Your task to perform on an android device: Show me popular games on the Play Store Image 0: 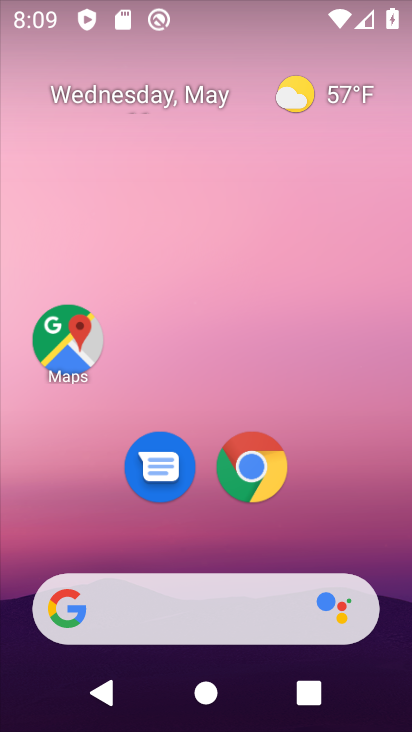
Step 0: drag from (336, 542) to (90, 5)
Your task to perform on an android device: Show me popular games on the Play Store Image 1: 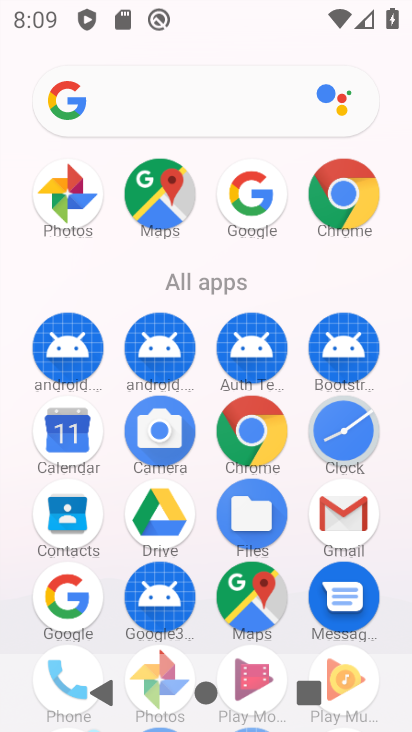
Step 1: drag from (203, 497) to (146, 322)
Your task to perform on an android device: Show me popular games on the Play Store Image 2: 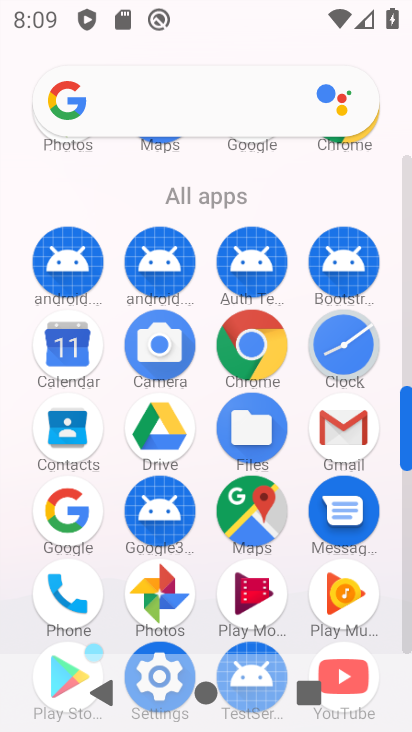
Step 2: drag from (215, 504) to (206, 76)
Your task to perform on an android device: Show me popular games on the Play Store Image 3: 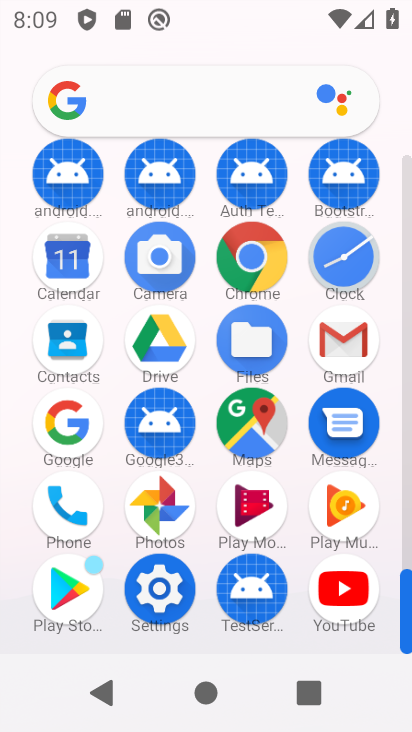
Step 3: drag from (183, 541) to (146, 259)
Your task to perform on an android device: Show me popular games on the Play Store Image 4: 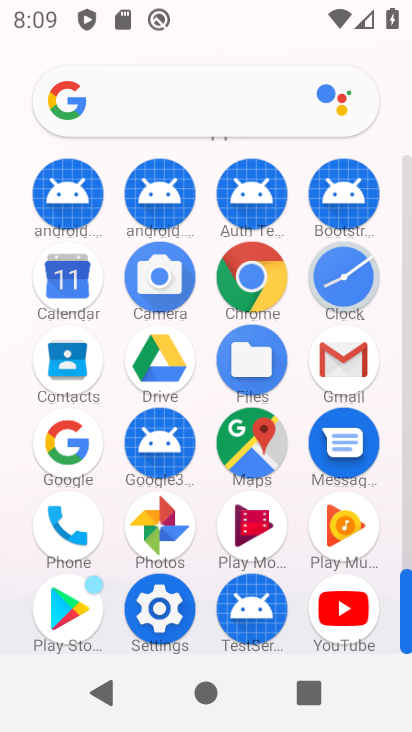
Step 4: drag from (190, 428) to (189, 142)
Your task to perform on an android device: Show me popular games on the Play Store Image 5: 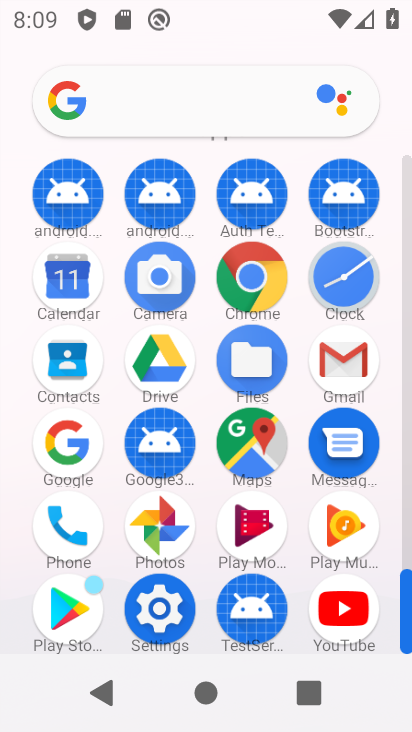
Step 5: drag from (207, 495) to (206, 0)
Your task to perform on an android device: Show me popular games on the Play Store Image 6: 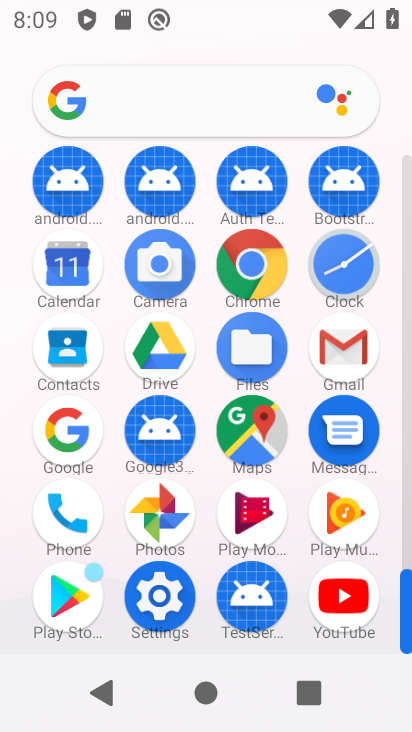
Step 6: drag from (230, 390) to (213, 153)
Your task to perform on an android device: Show me popular games on the Play Store Image 7: 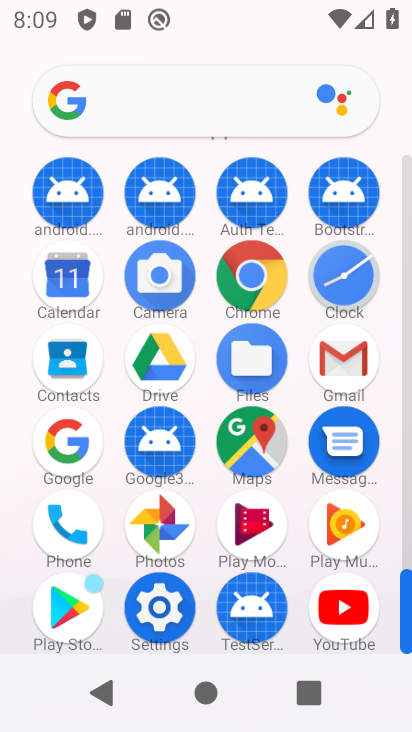
Step 7: drag from (194, 486) to (181, 4)
Your task to perform on an android device: Show me popular games on the Play Store Image 8: 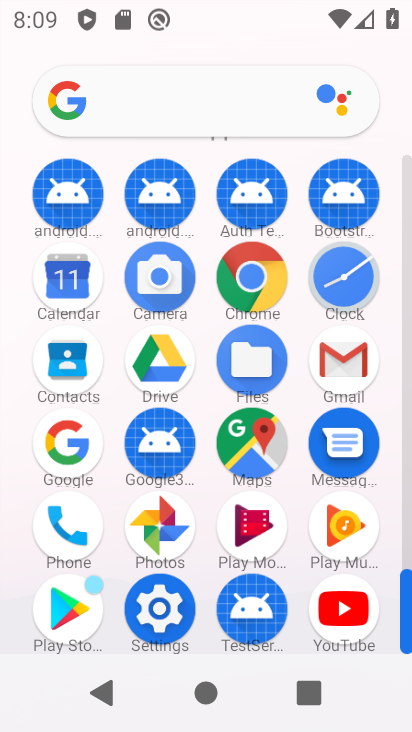
Step 8: click (73, 599)
Your task to perform on an android device: Show me popular games on the Play Store Image 9: 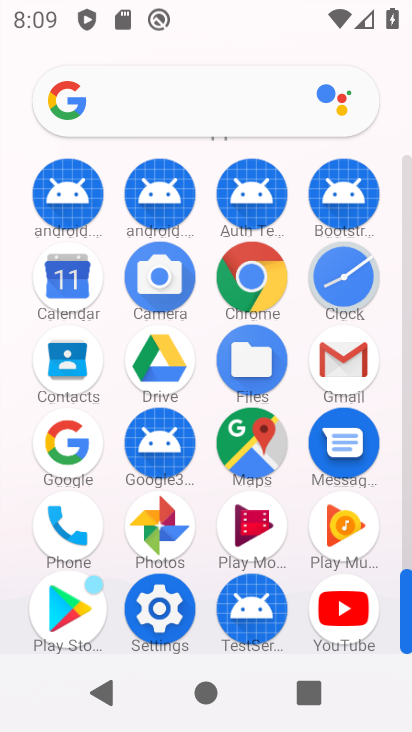
Step 9: click (71, 599)
Your task to perform on an android device: Show me popular games on the Play Store Image 10: 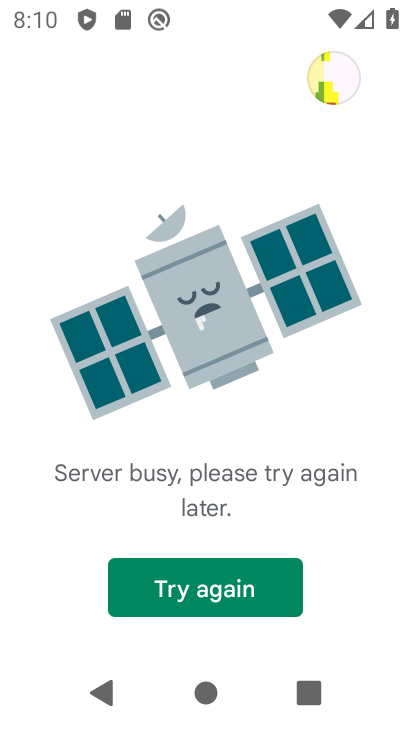
Step 10: click (214, 317)
Your task to perform on an android device: Show me popular games on the Play Store Image 11: 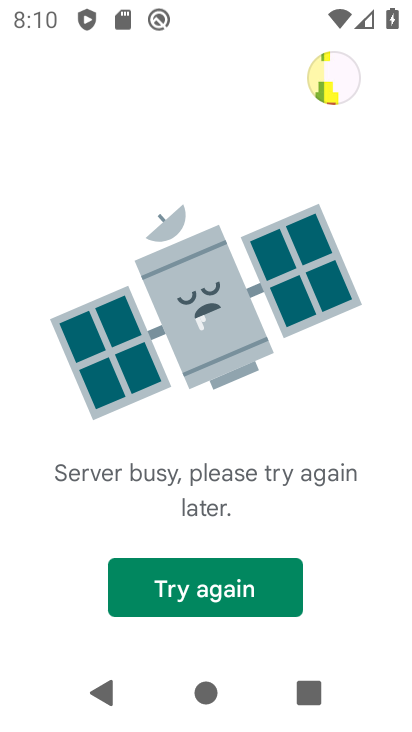
Step 11: click (199, 297)
Your task to perform on an android device: Show me popular games on the Play Store Image 12: 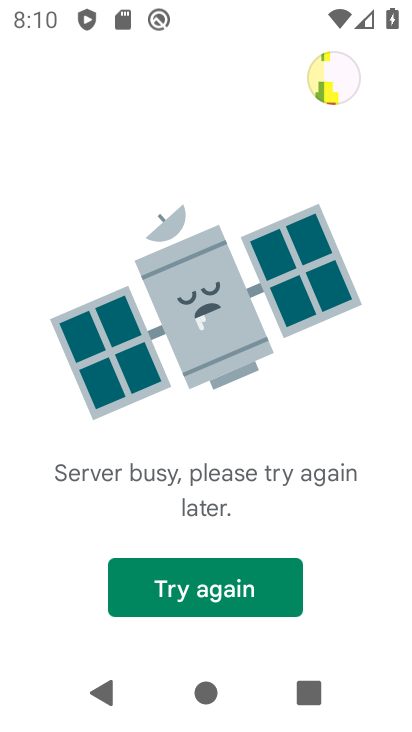
Step 12: click (199, 297)
Your task to perform on an android device: Show me popular games on the Play Store Image 13: 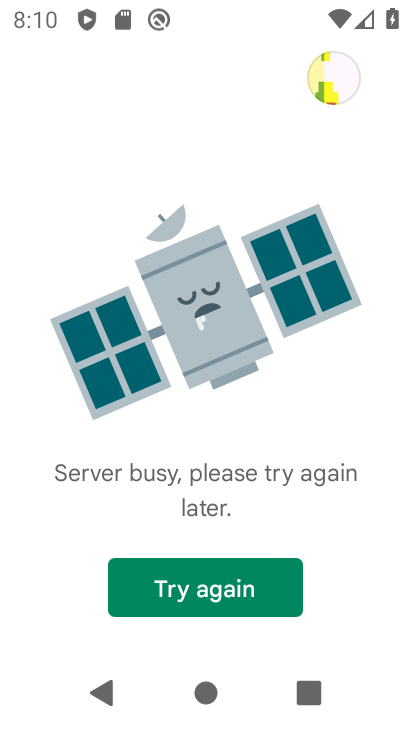
Step 13: click (199, 297)
Your task to perform on an android device: Show me popular games on the Play Store Image 14: 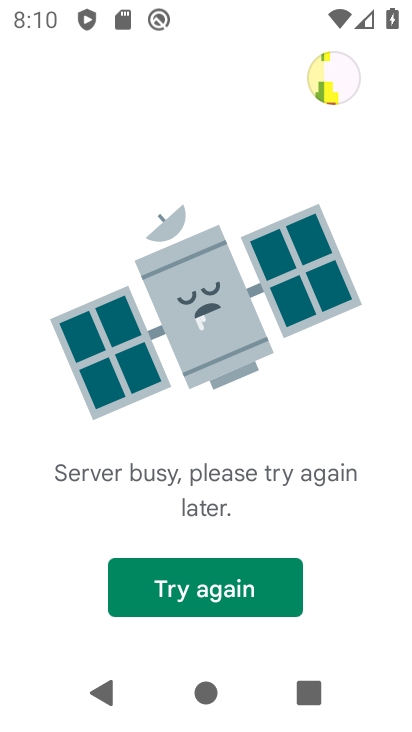
Step 14: click (199, 297)
Your task to perform on an android device: Show me popular games on the Play Store Image 15: 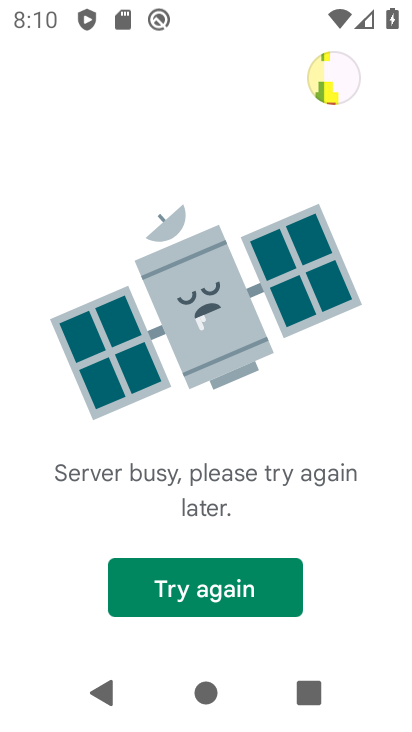
Step 15: click (199, 297)
Your task to perform on an android device: Show me popular games on the Play Store Image 16: 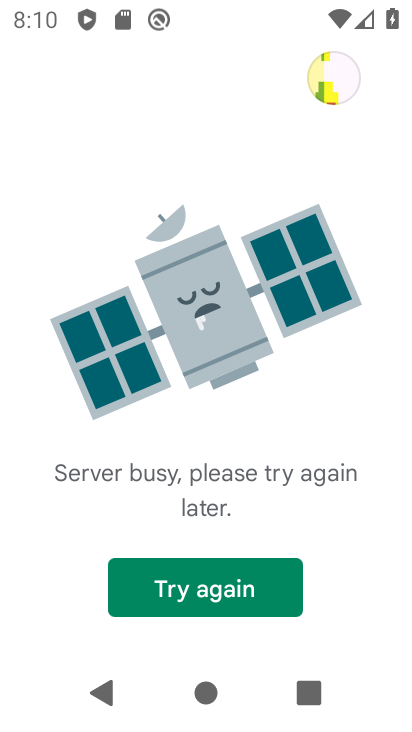
Step 16: click (201, 250)
Your task to perform on an android device: Show me popular games on the Play Store Image 17: 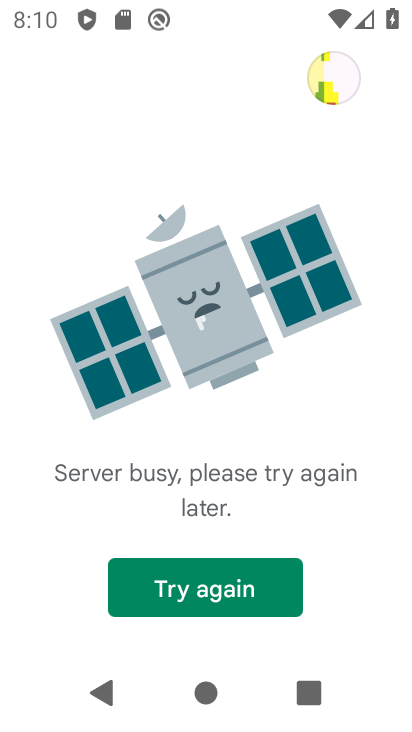
Step 17: click (203, 248)
Your task to perform on an android device: Show me popular games on the Play Store Image 18: 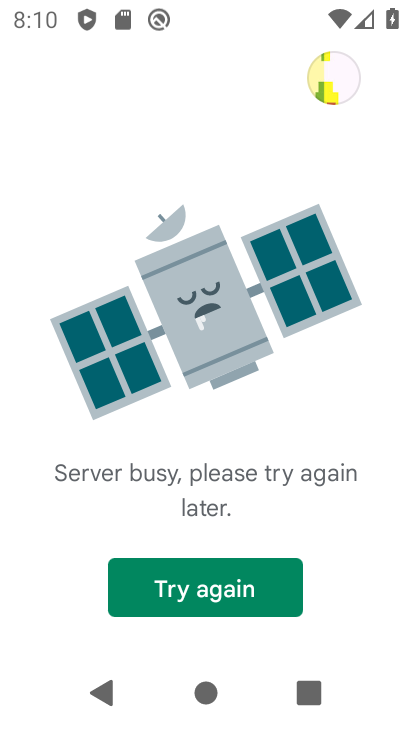
Step 18: click (214, 256)
Your task to perform on an android device: Show me popular games on the Play Store Image 19: 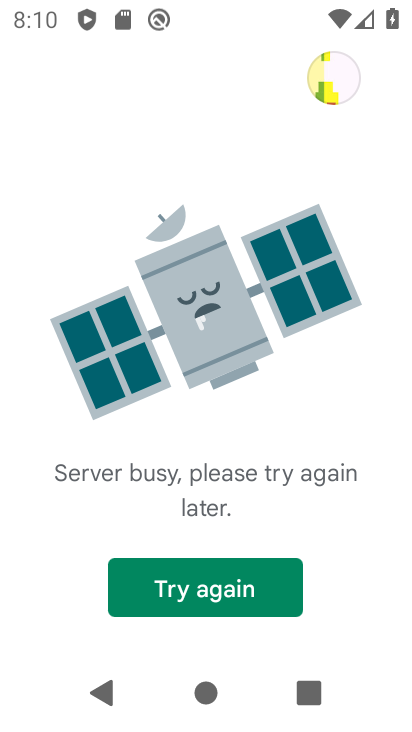
Step 19: click (213, 275)
Your task to perform on an android device: Show me popular games on the Play Store Image 20: 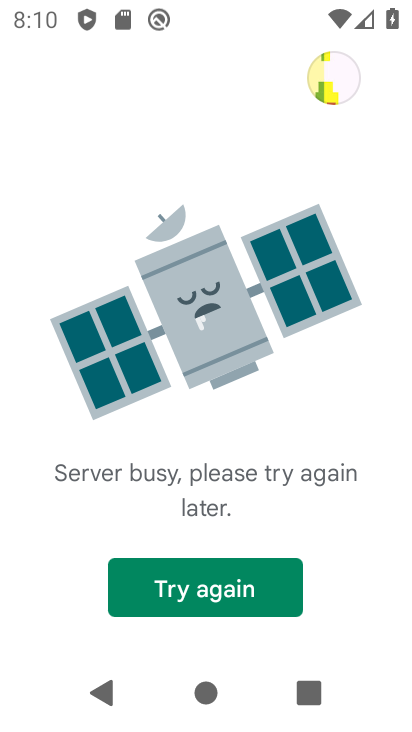
Step 20: click (214, 245)
Your task to perform on an android device: Show me popular games on the Play Store Image 21: 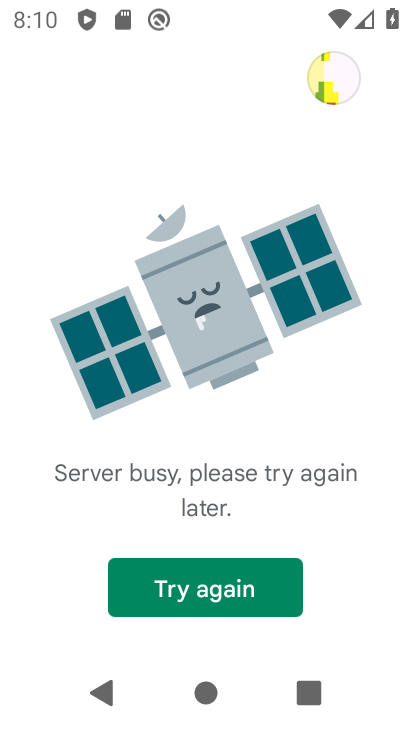
Step 21: click (208, 281)
Your task to perform on an android device: Show me popular games on the Play Store Image 22: 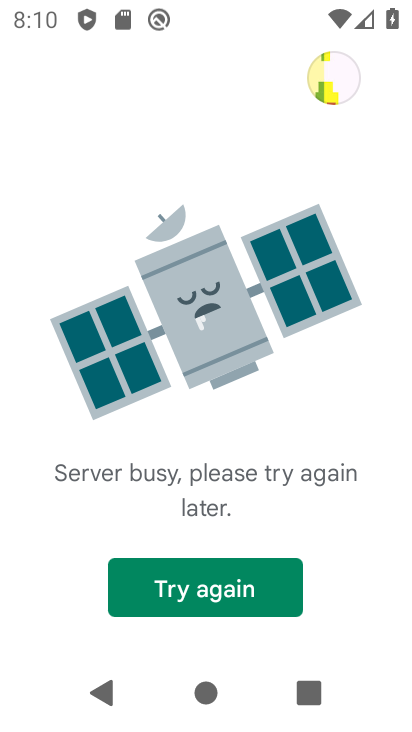
Step 22: click (203, 289)
Your task to perform on an android device: Show me popular games on the Play Store Image 23: 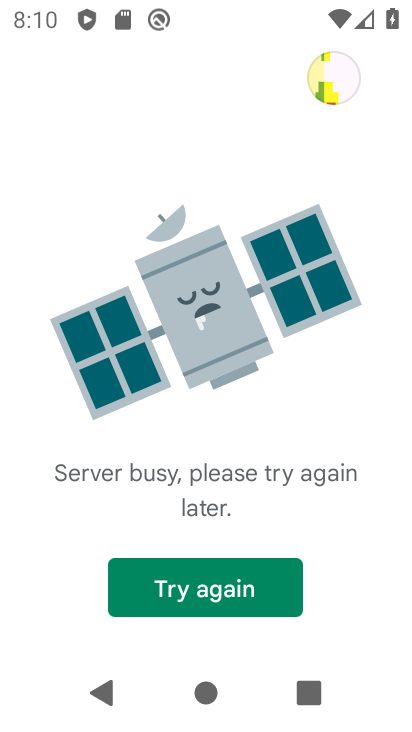
Step 23: click (199, 292)
Your task to perform on an android device: Show me popular games on the Play Store Image 24: 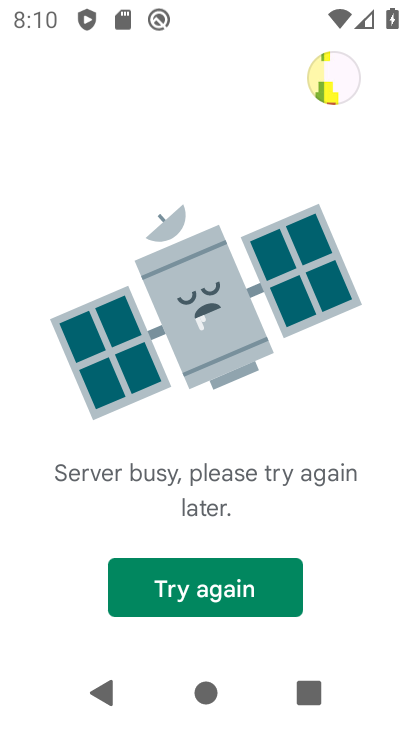
Step 24: click (199, 294)
Your task to perform on an android device: Show me popular games on the Play Store Image 25: 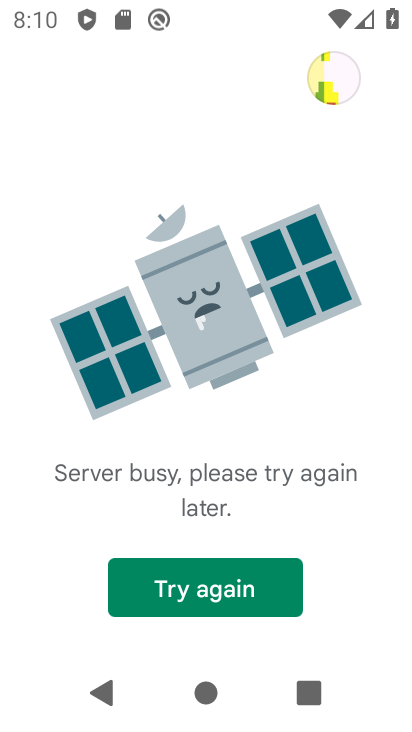
Step 25: click (195, 300)
Your task to perform on an android device: Show me popular games on the Play Store Image 26: 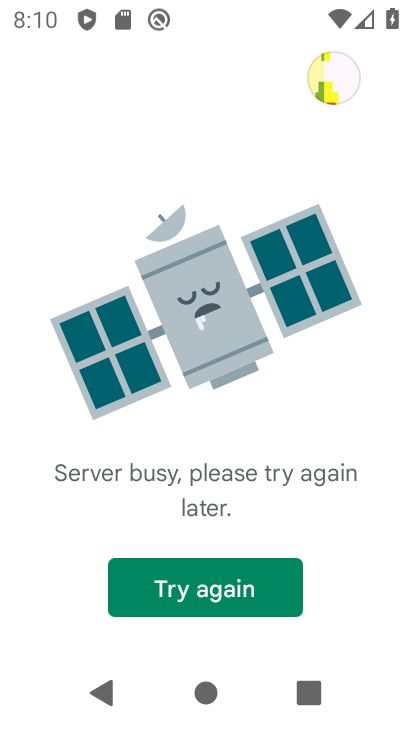
Step 26: click (195, 300)
Your task to perform on an android device: Show me popular games on the Play Store Image 27: 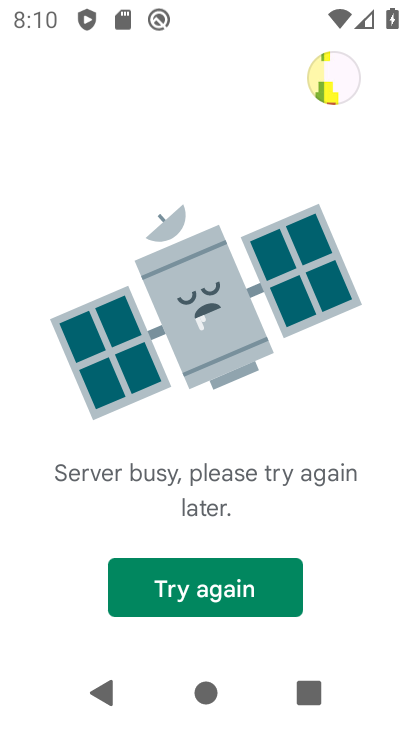
Step 27: click (195, 300)
Your task to perform on an android device: Show me popular games on the Play Store Image 28: 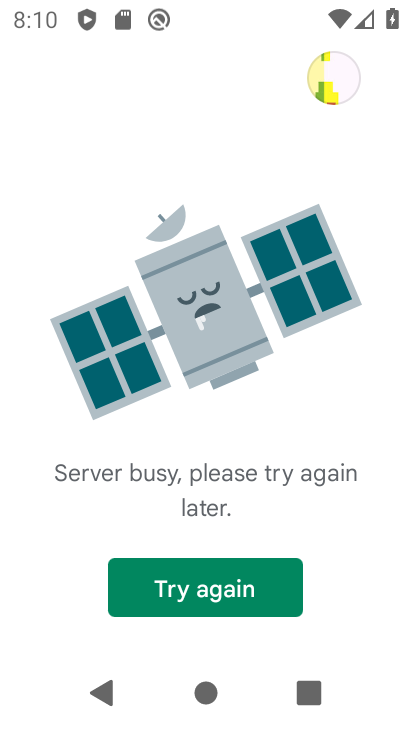
Step 28: click (195, 300)
Your task to perform on an android device: Show me popular games on the Play Store Image 29: 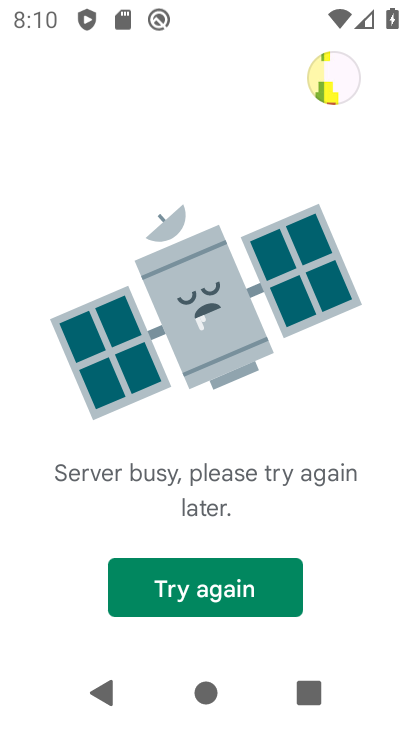
Step 29: click (196, 289)
Your task to perform on an android device: Show me popular games on the Play Store Image 30: 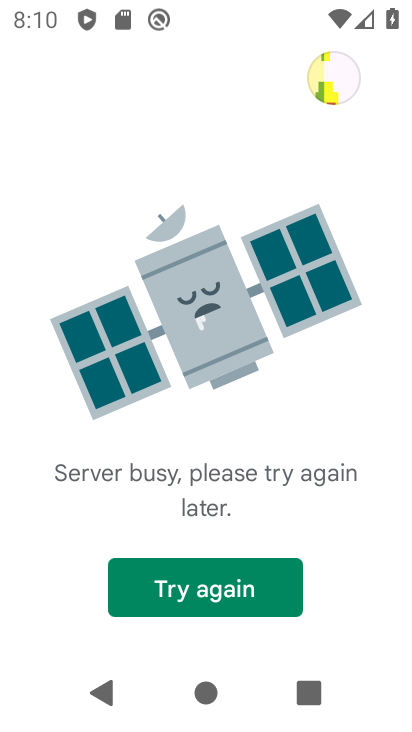
Step 30: click (196, 289)
Your task to perform on an android device: Show me popular games on the Play Store Image 31: 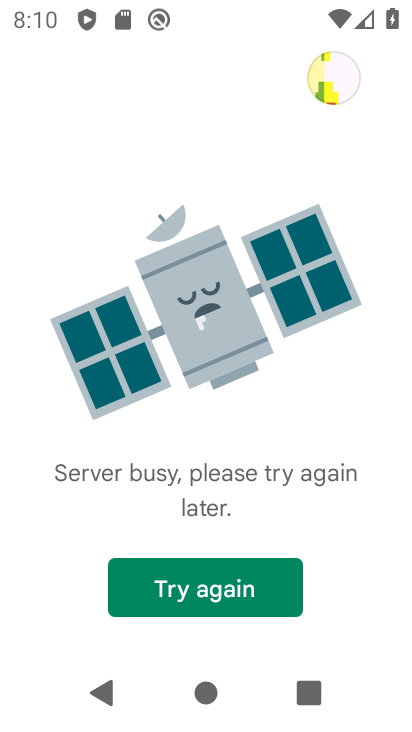
Step 31: click (196, 289)
Your task to perform on an android device: Show me popular games on the Play Store Image 32: 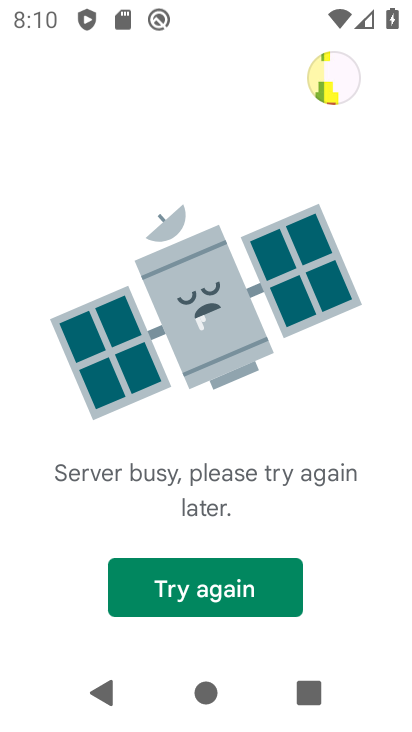
Step 32: click (196, 289)
Your task to perform on an android device: Show me popular games on the Play Store Image 33: 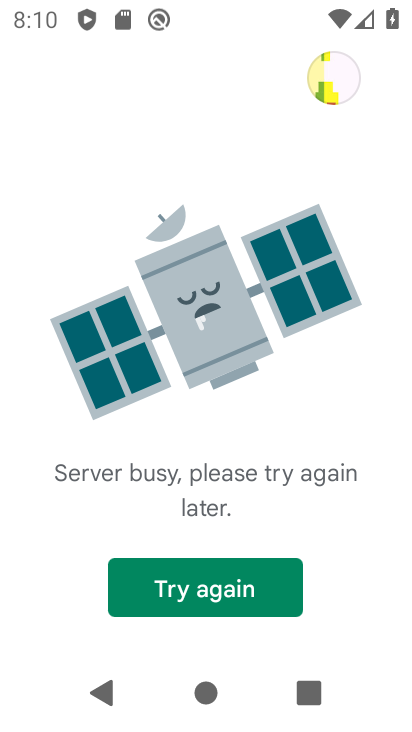
Step 33: drag from (204, 263) to (208, 310)
Your task to perform on an android device: Show me popular games on the Play Store Image 34: 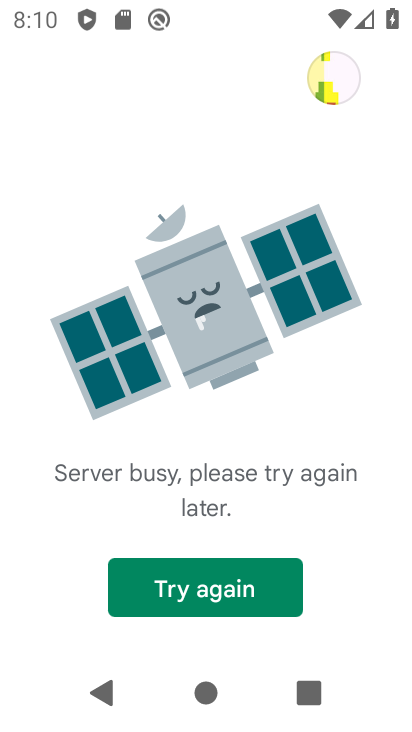
Step 34: click (213, 311)
Your task to perform on an android device: Show me popular games on the Play Store Image 35: 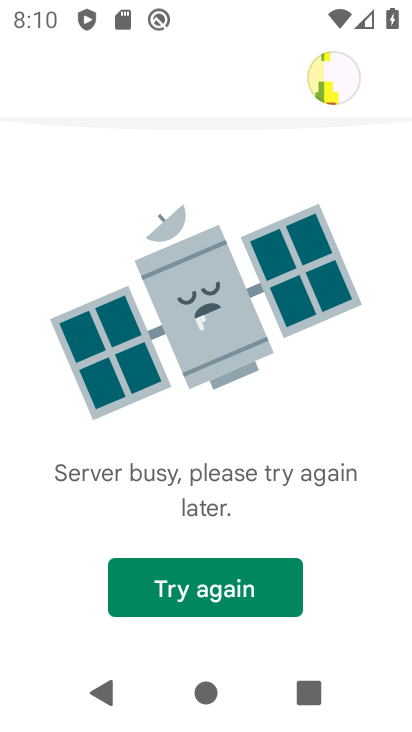
Step 35: task complete